Your task to perform on an android device: Open display settings Image 0: 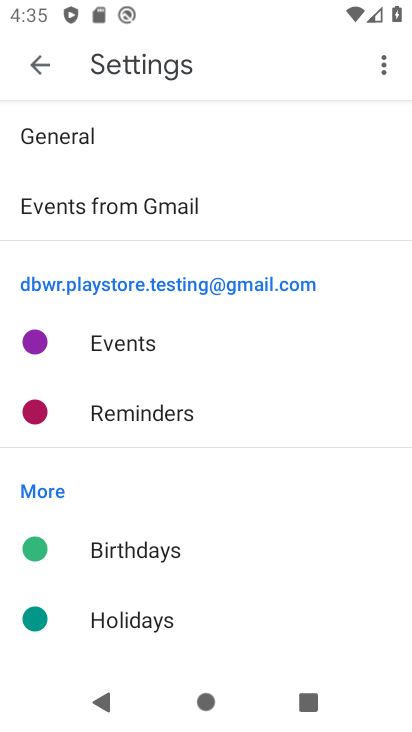
Step 0: press home button
Your task to perform on an android device: Open display settings Image 1: 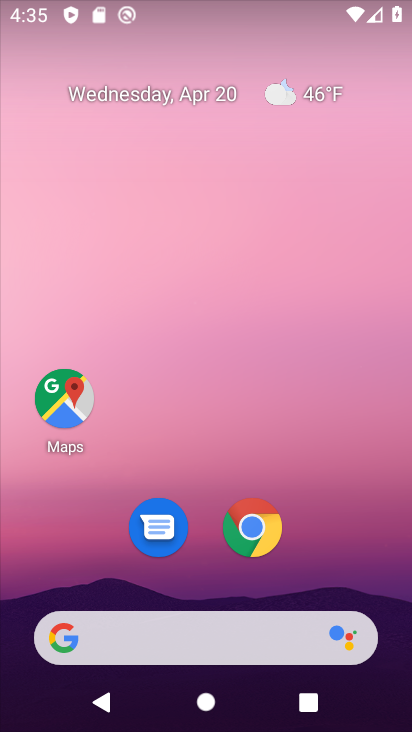
Step 1: drag from (194, 599) to (211, 180)
Your task to perform on an android device: Open display settings Image 2: 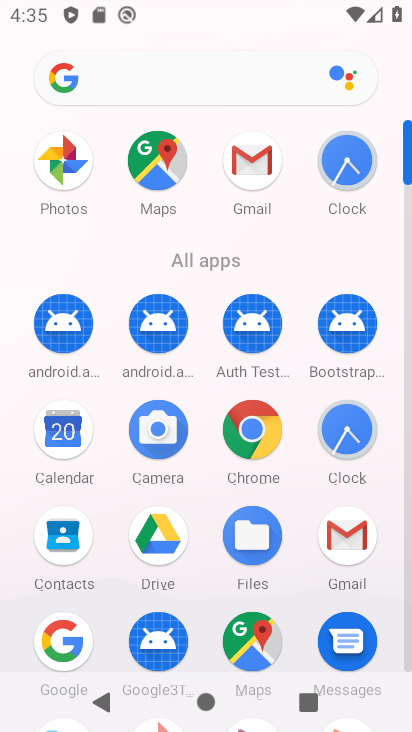
Step 2: drag from (197, 555) to (218, 269)
Your task to perform on an android device: Open display settings Image 3: 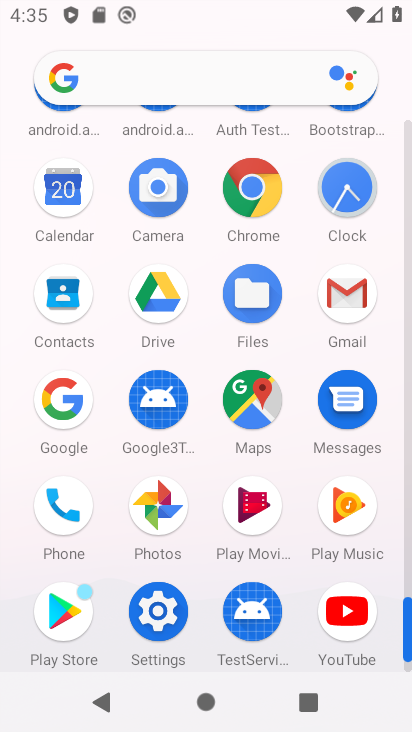
Step 3: click (162, 616)
Your task to perform on an android device: Open display settings Image 4: 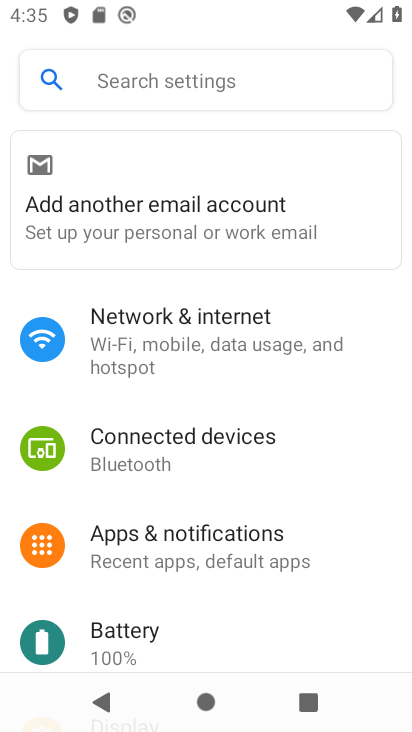
Step 4: drag from (164, 576) to (208, 297)
Your task to perform on an android device: Open display settings Image 5: 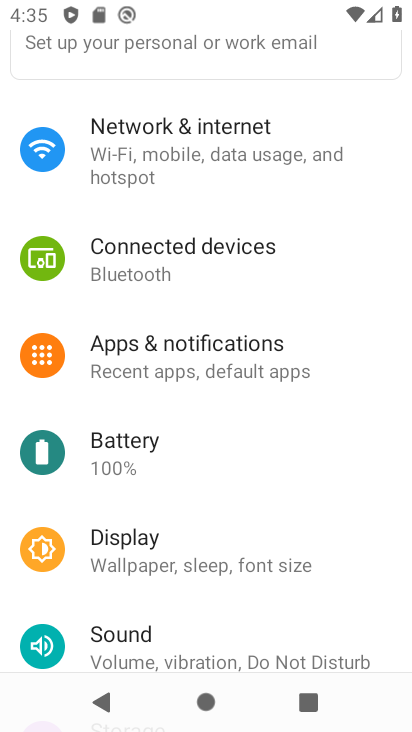
Step 5: click (154, 531)
Your task to perform on an android device: Open display settings Image 6: 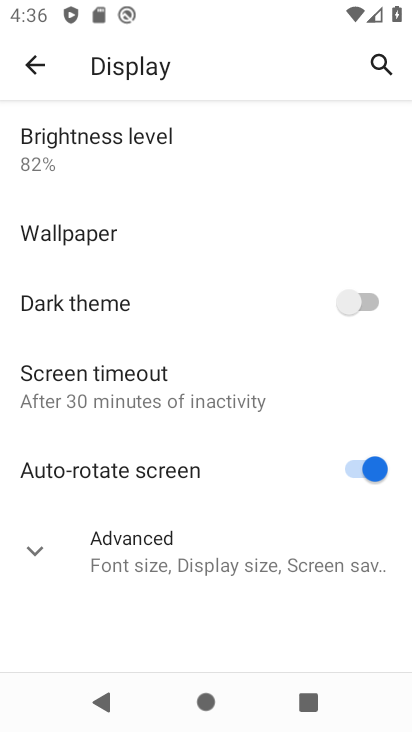
Step 6: task complete